Your task to perform on an android device: Open privacy settings Image 0: 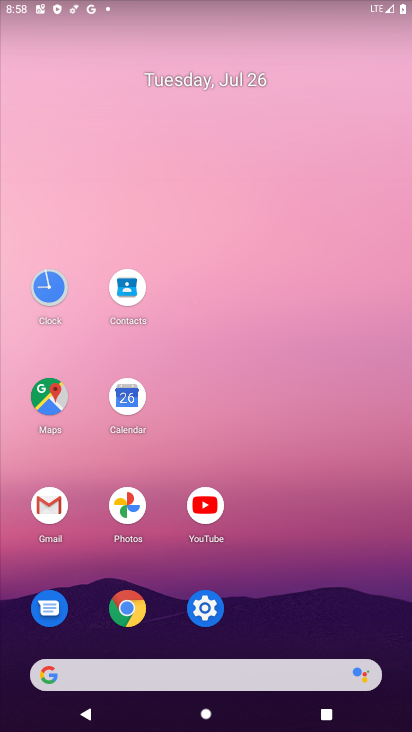
Step 0: click (207, 605)
Your task to perform on an android device: Open privacy settings Image 1: 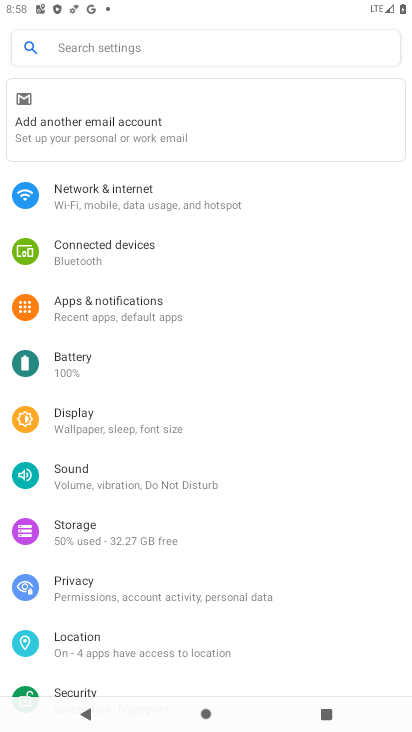
Step 1: click (78, 584)
Your task to perform on an android device: Open privacy settings Image 2: 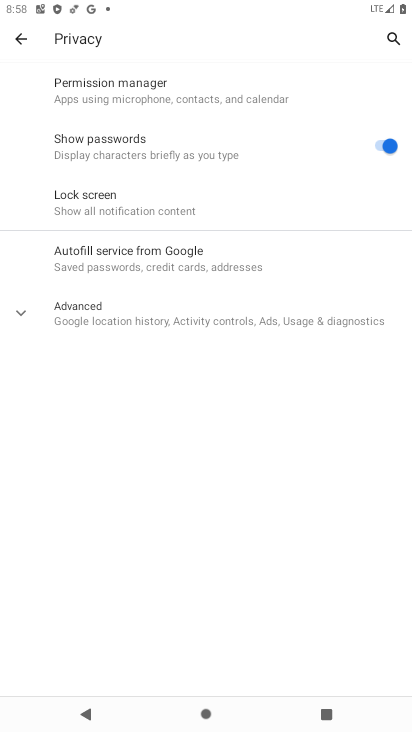
Step 2: task complete